Your task to perform on an android device: choose inbox layout in the gmail app Image 0: 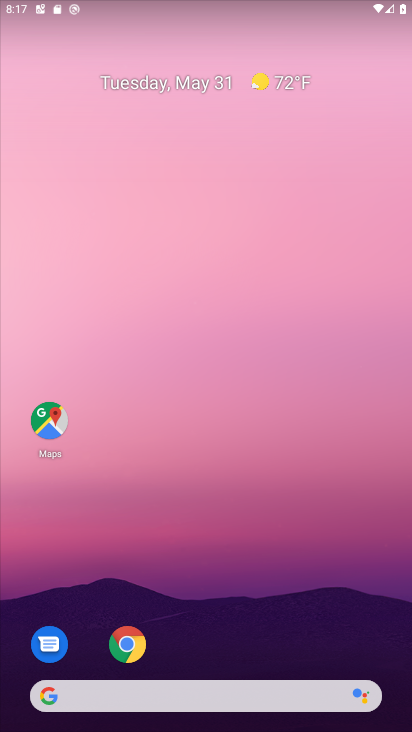
Step 0: press home button
Your task to perform on an android device: choose inbox layout in the gmail app Image 1: 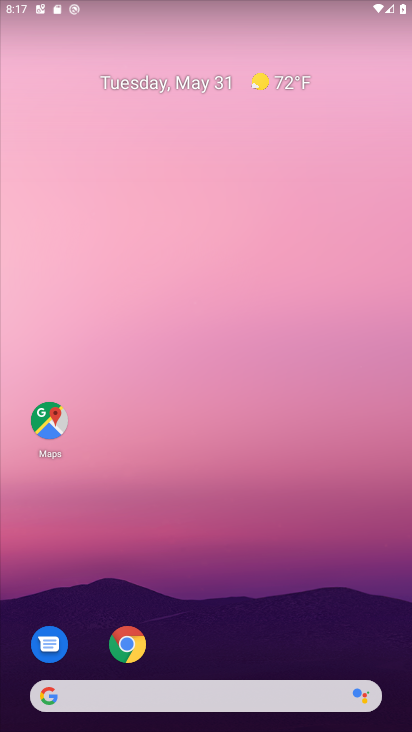
Step 1: drag from (208, 658) to (198, 79)
Your task to perform on an android device: choose inbox layout in the gmail app Image 2: 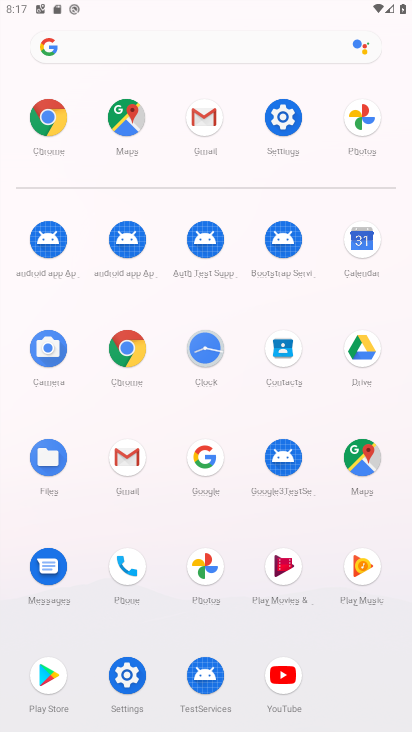
Step 2: click (197, 109)
Your task to perform on an android device: choose inbox layout in the gmail app Image 3: 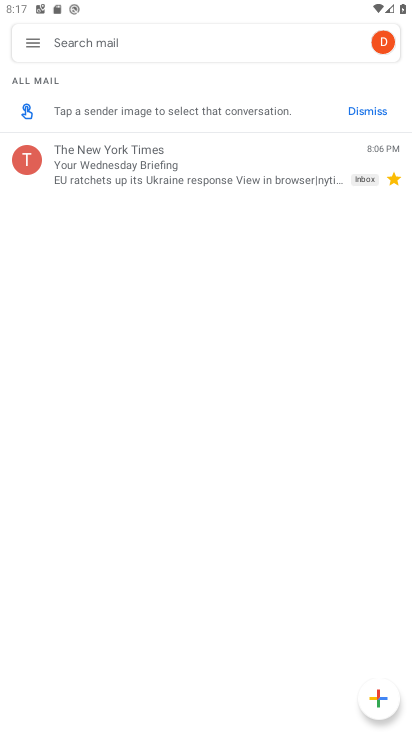
Step 3: click (31, 43)
Your task to perform on an android device: choose inbox layout in the gmail app Image 4: 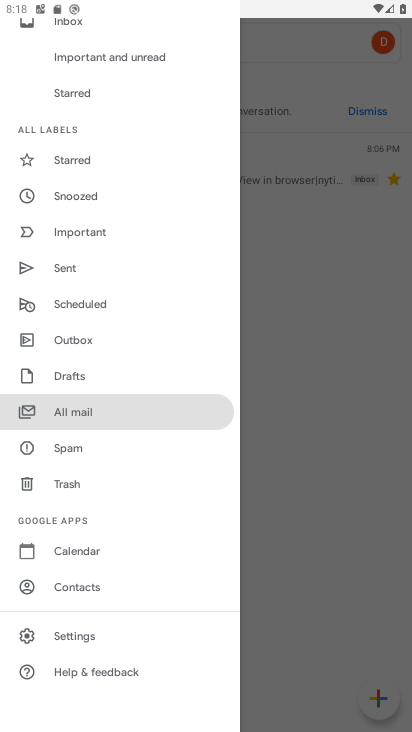
Step 4: click (103, 632)
Your task to perform on an android device: choose inbox layout in the gmail app Image 5: 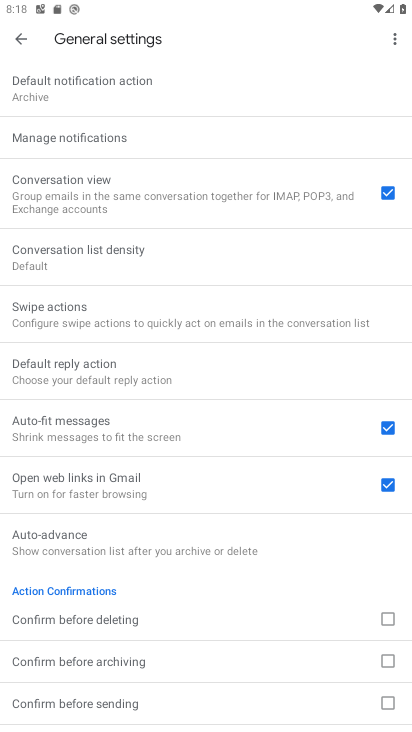
Step 5: click (24, 39)
Your task to perform on an android device: choose inbox layout in the gmail app Image 6: 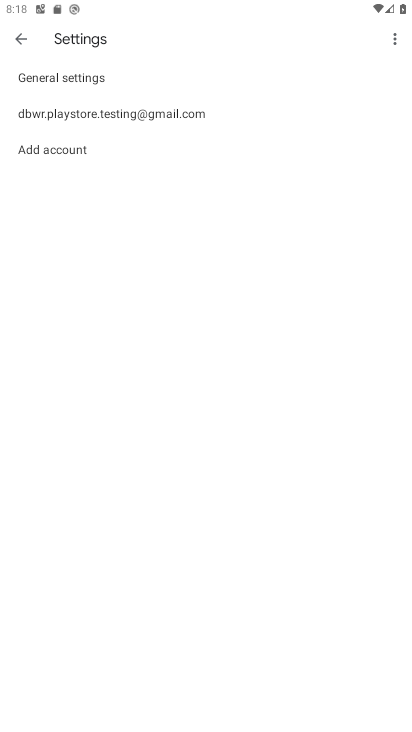
Step 6: click (99, 108)
Your task to perform on an android device: choose inbox layout in the gmail app Image 7: 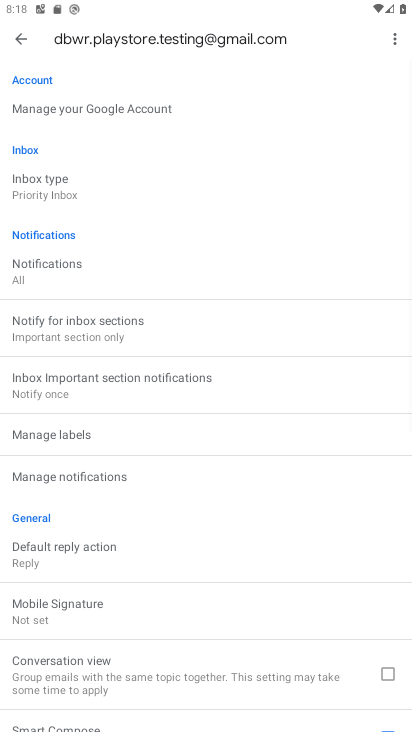
Step 7: click (87, 186)
Your task to perform on an android device: choose inbox layout in the gmail app Image 8: 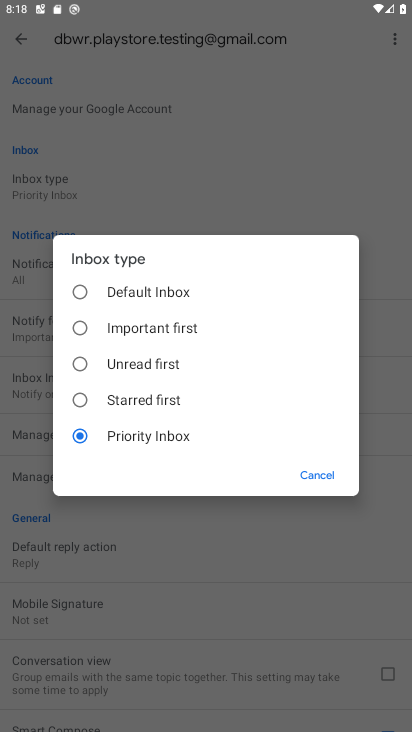
Step 8: click (82, 291)
Your task to perform on an android device: choose inbox layout in the gmail app Image 9: 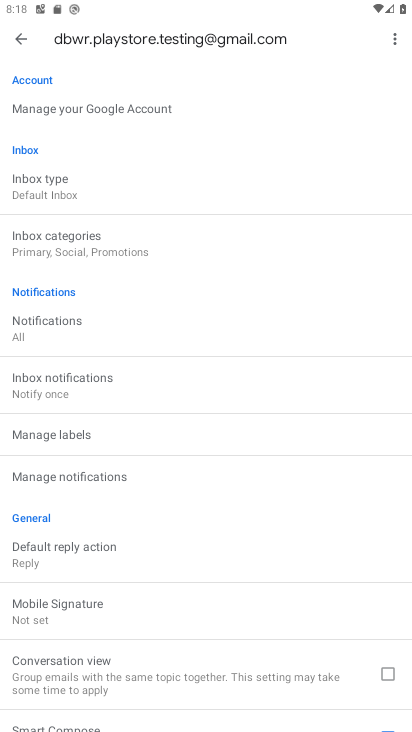
Step 9: task complete